Your task to perform on an android device: Go to privacy settings Image 0: 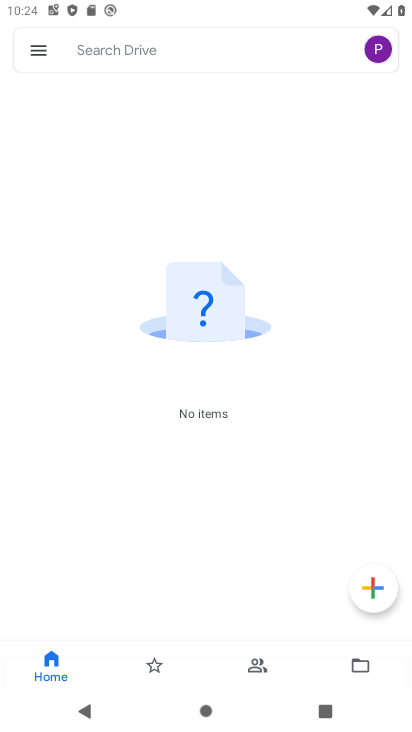
Step 0: press home button
Your task to perform on an android device: Go to privacy settings Image 1: 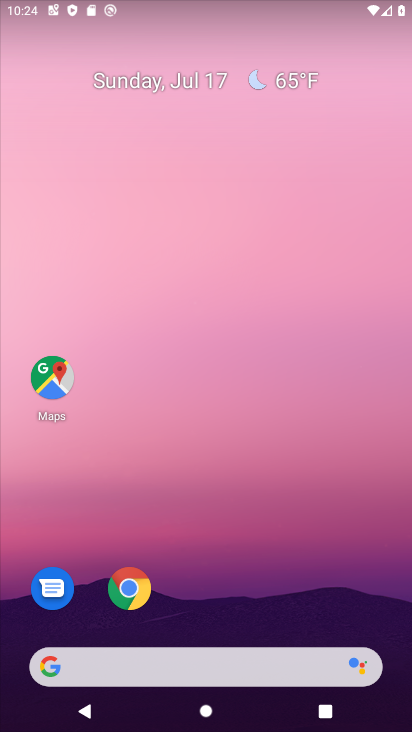
Step 1: drag from (219, 570) to (178, 187)
Your task to perform on an android device: Go to privacy settings Image 2: 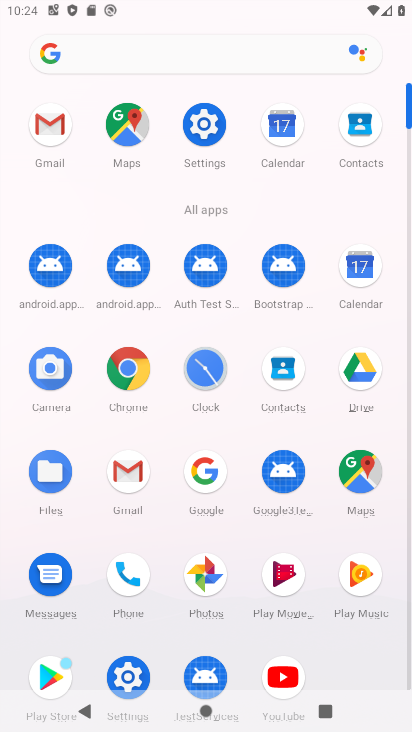
Step 2: click (205, 125)
Your task to perform on an android device: Go to privacy settings Image 3: 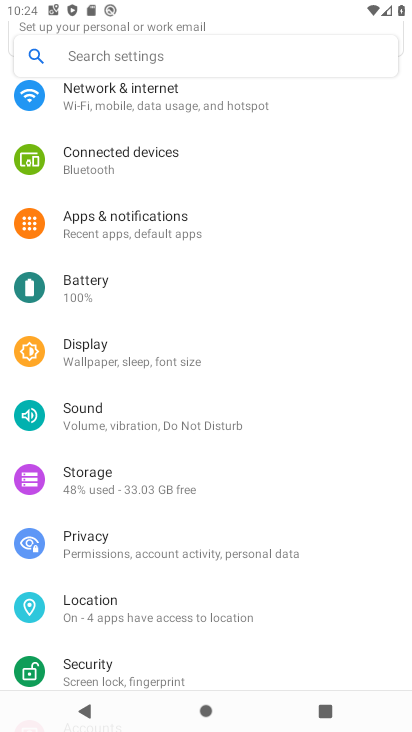
Step 3: click (85, 532)
Your task to perform on an android device: Go to privacy settings Image 4: 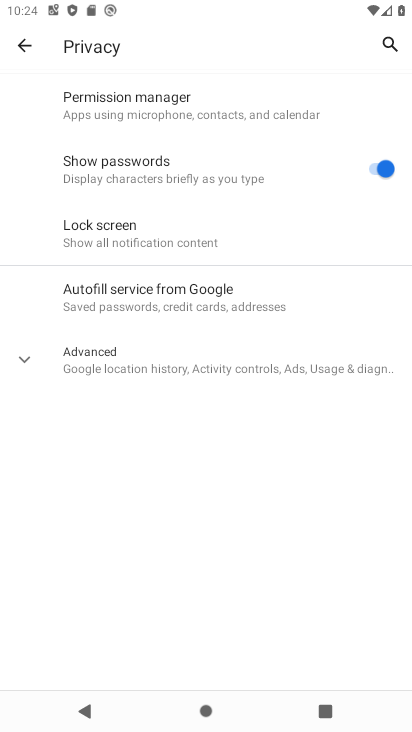
Step 4: task complete